Your task to perform on an android device: toggle priority inbox in the gmail app Image 0: 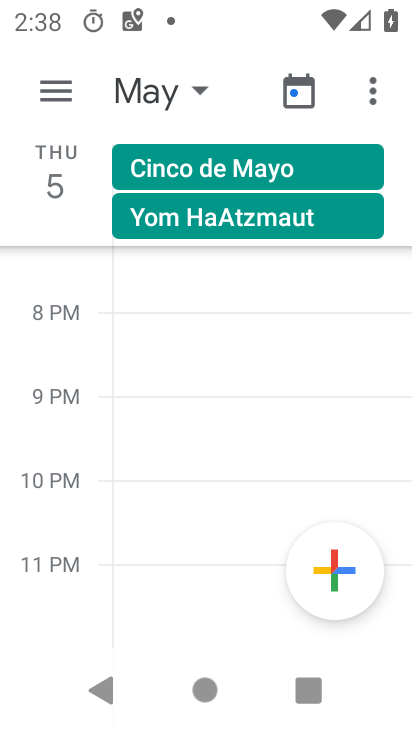
Step 0: press home button
Your task to perform on an android device: toggle priority inbox in the gmail app Image 1: 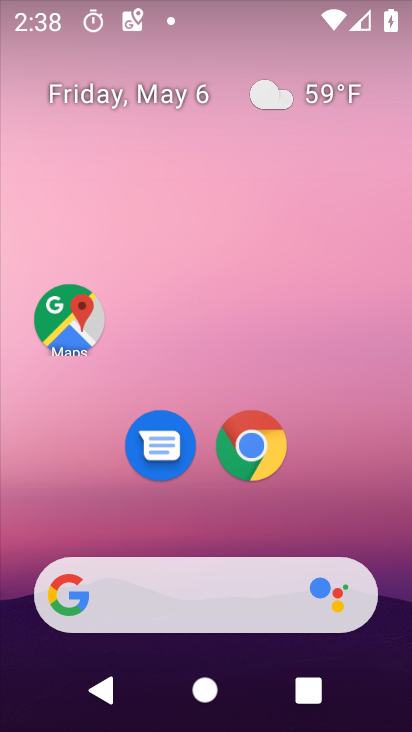
Step 1: drag from (398, 605) to (274, 115)
Your task to perform on an android device: toggle priority inbox in the gmail app Image 2: 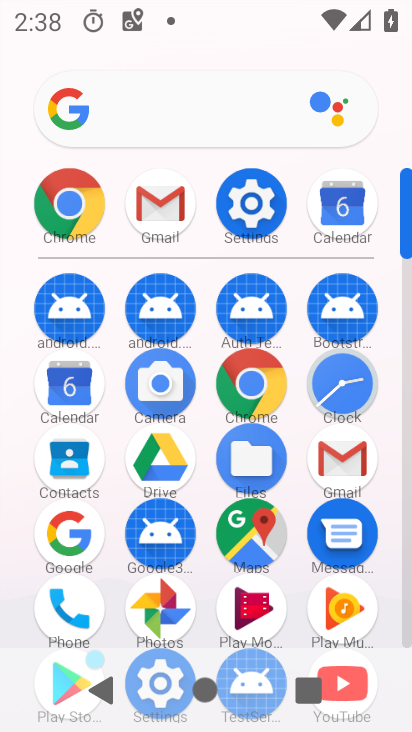
Step 2: click (337, 455)
Your task to perform on an android device: toggle priority inbox in the gmail app Image 3: 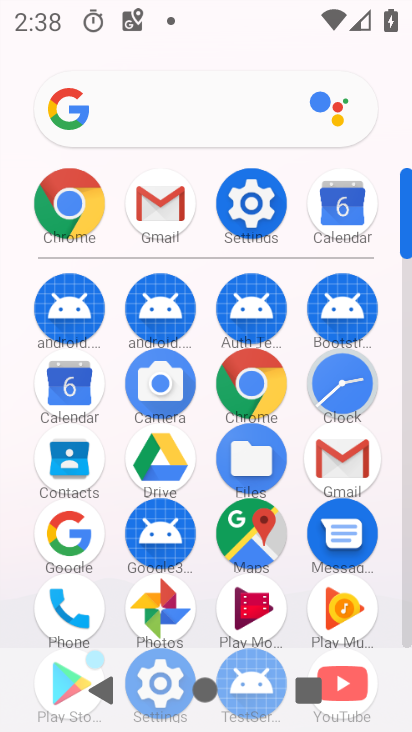
Step 3: click (337, 455)
Your task to perform on an android device: toggle priority inbox in the gmail app Image 4: 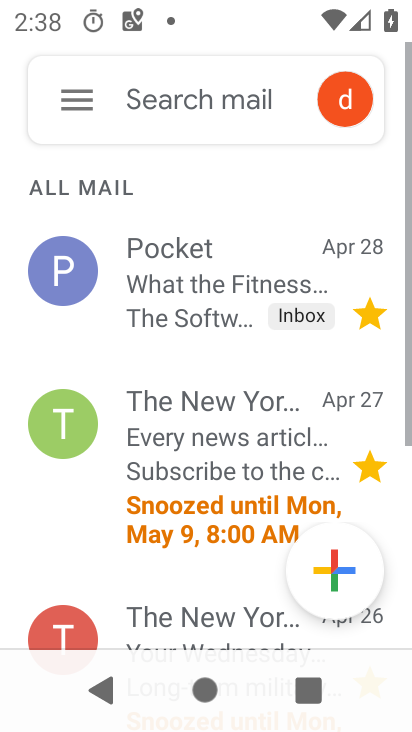
Step 4: click (337, 455)
Your task to perform on an android device: toggle priority inbox in the gmail app Image 5: 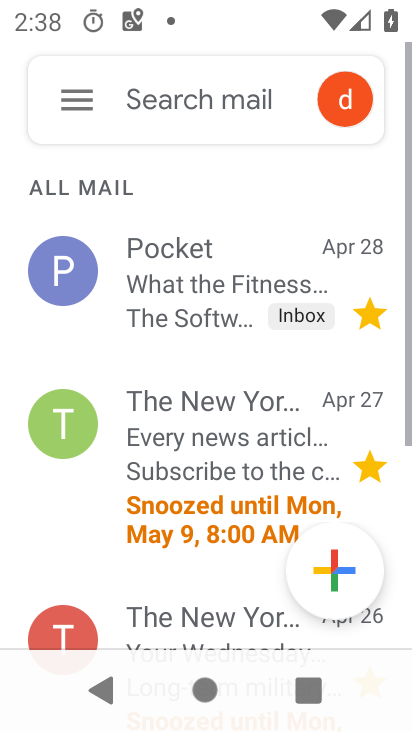
Step 5: click (337, 466)
Your task to perform on an android device: toggle priority inbox in the gmail app Image 6: 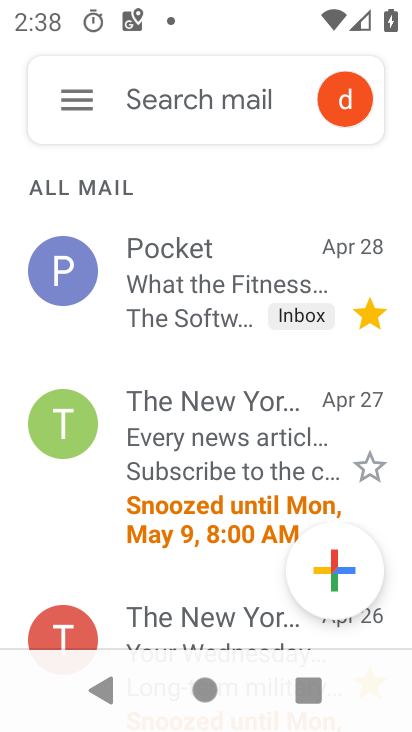
Step 6: click (68, 103)
Your task to perform on an android device: toggle priority inbox in the gmail app Image 7: 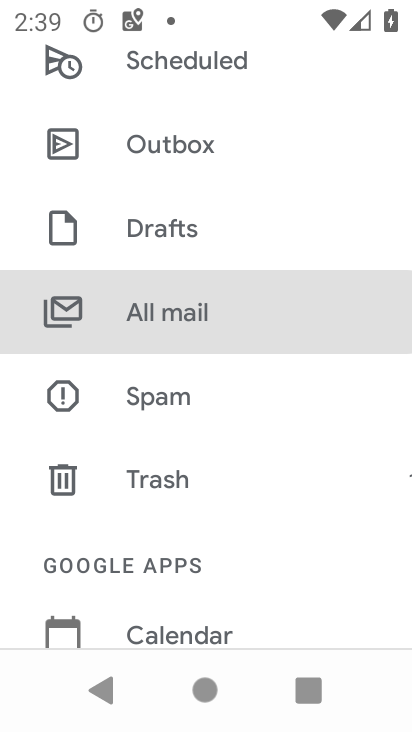
Step 7: drag from (197, 523) to (206, 79)
Your task to perform on an android device: toggle priority inbox in the gmail app Image 8: 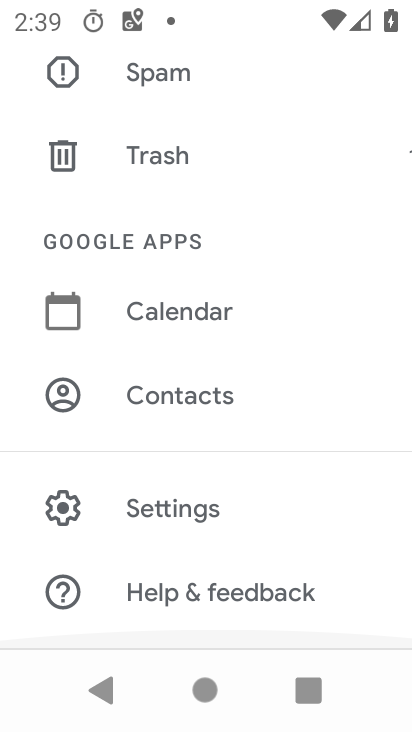
Step 8: drag from (274, 429) to (268, 97)
Your task to perform on an android device: toggle priority inbox in the gmail app Image 9: 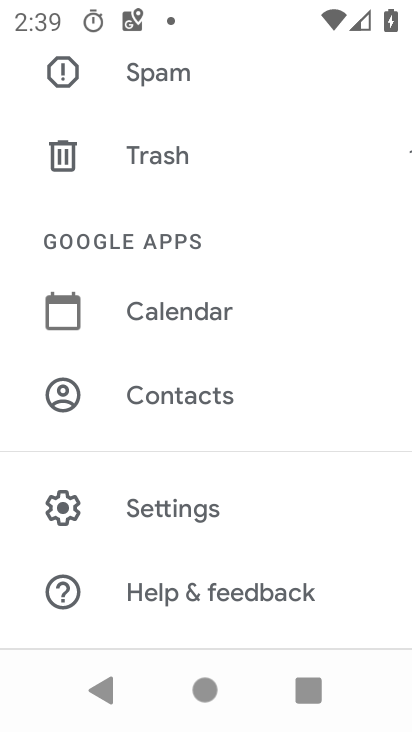
Step 9: click (149, 506)
Your task to perform on an android device: toggle priority inbox in the gmail app Image 10: 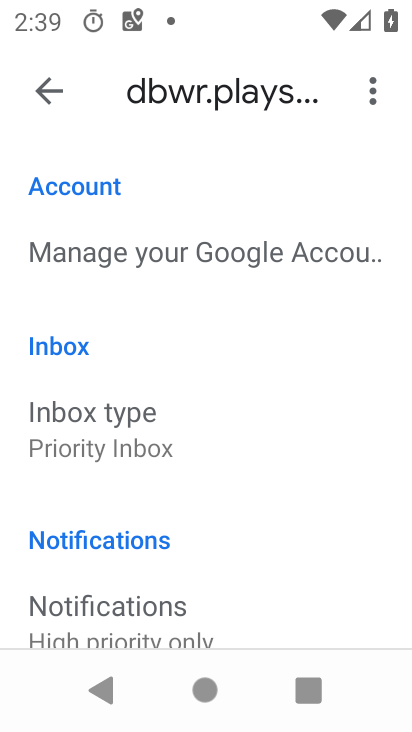
Step 10: click (82, 419)
Your task to perform on an android device: toggle priority inbox in the gmail app Image 11: 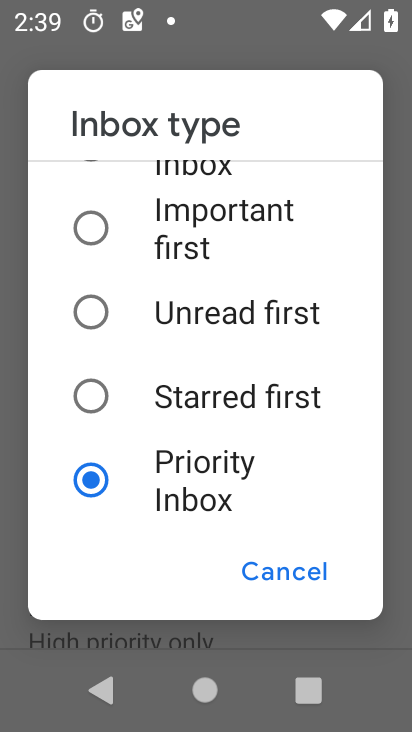
Step 11: task complete